Your task to perform on an android device: Empty the shopping cart on ebay. Add "macbook" to the cart on ebay, then select checkout. Image 0: 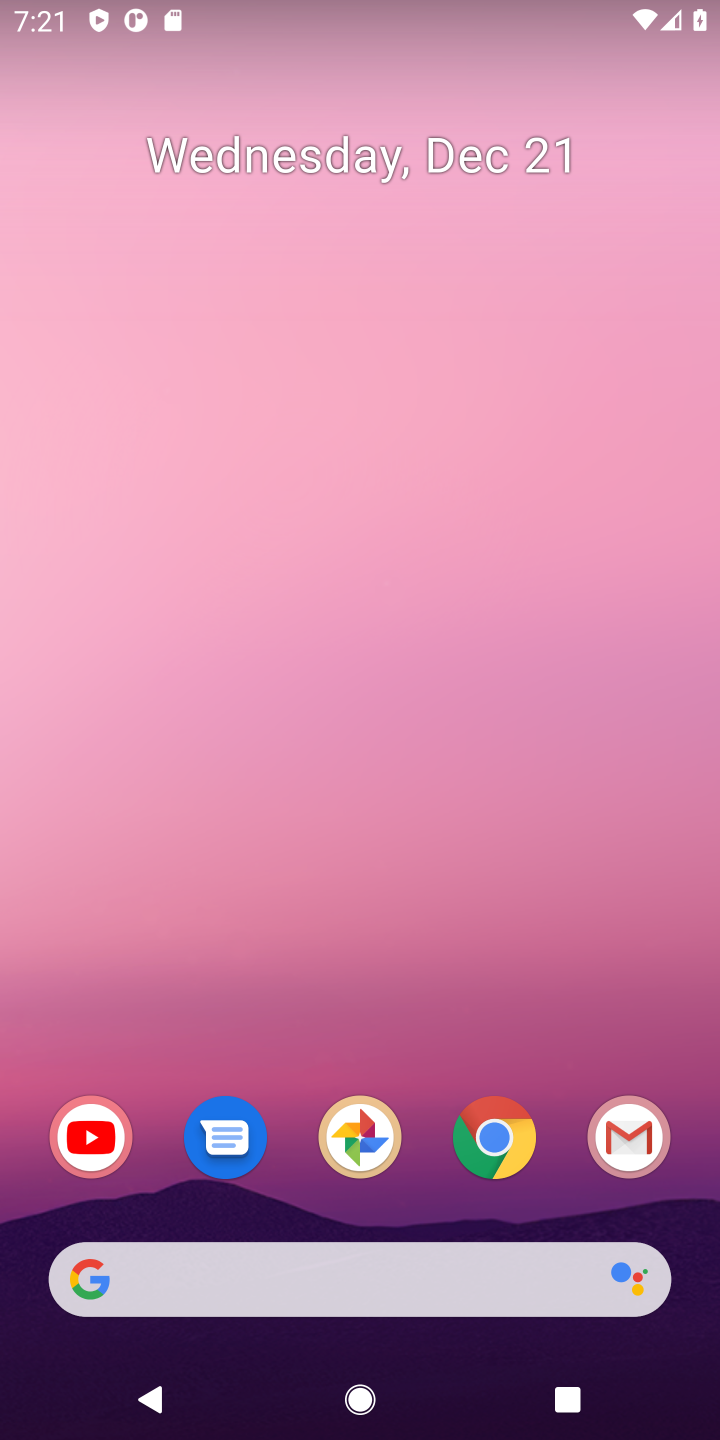
Step 0: click (502, 1145)
Your task to perform on an android device: Empty the shopping cart on ebay. Add "macbook" to the cart on ebay, then select checkout. Image 1: 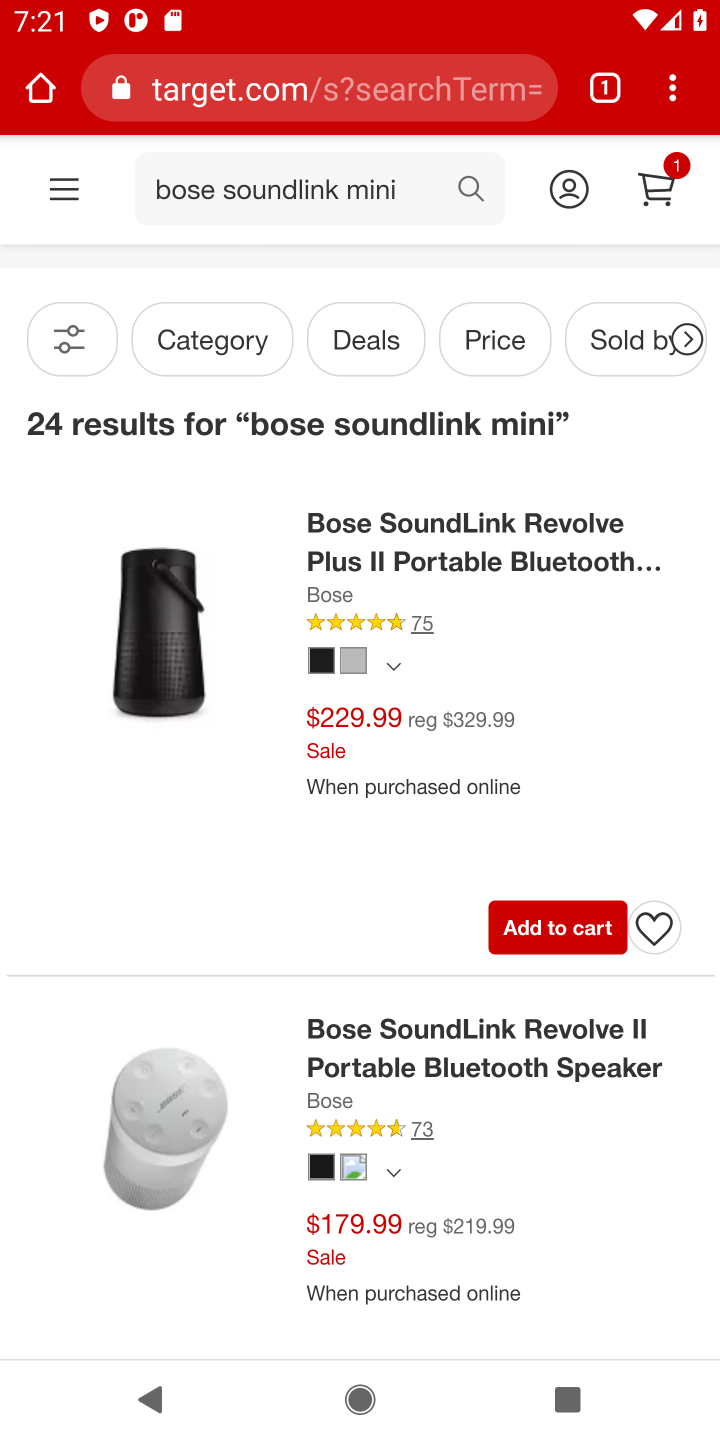
Step 1: click (236, 112)
Your task to perform on an android device: Empty the shopping cart on ebay. Add "macbook" to the cart on ebay, then select checkout. Image 2: 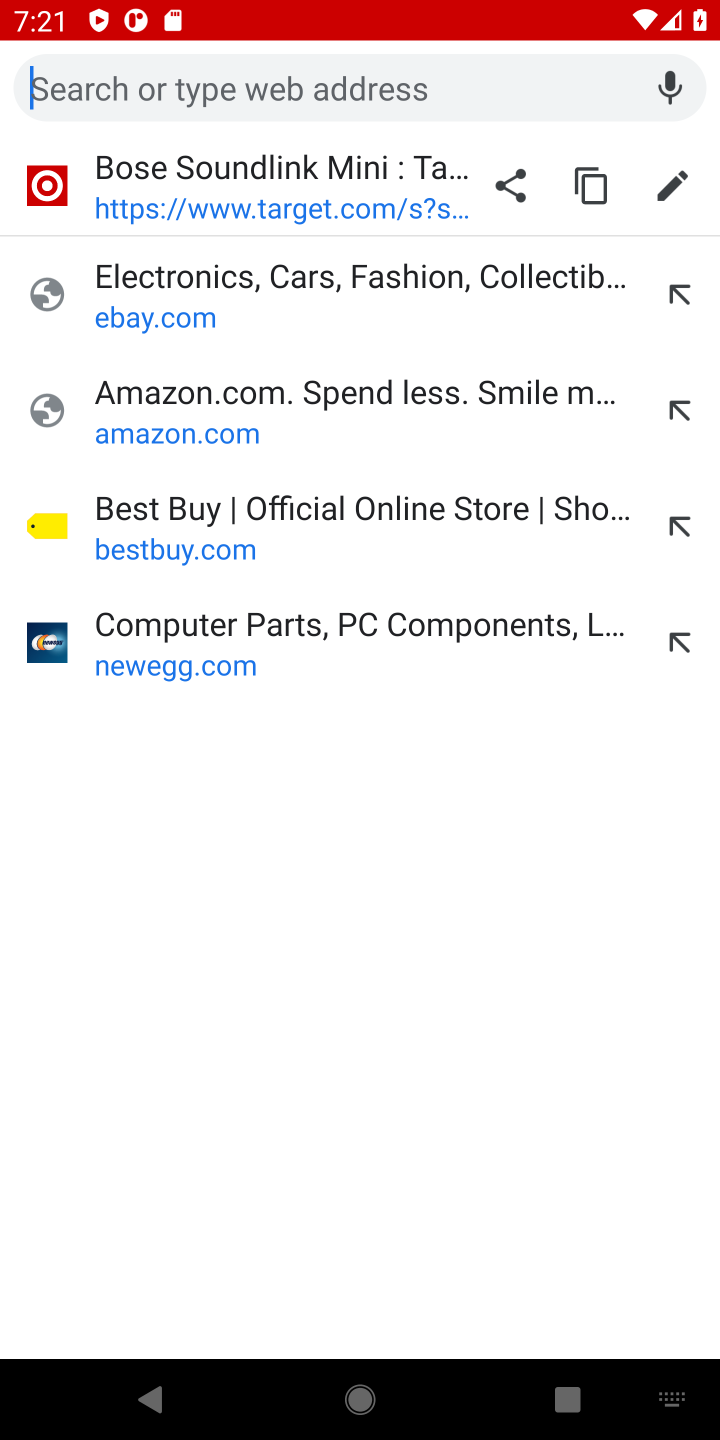
Step 2: click (173, 310)
Your task to perform on an android device: Empty the shopping cart on ebay. Add "macbook" to the cart on ebay, then select checkout. Image 3: 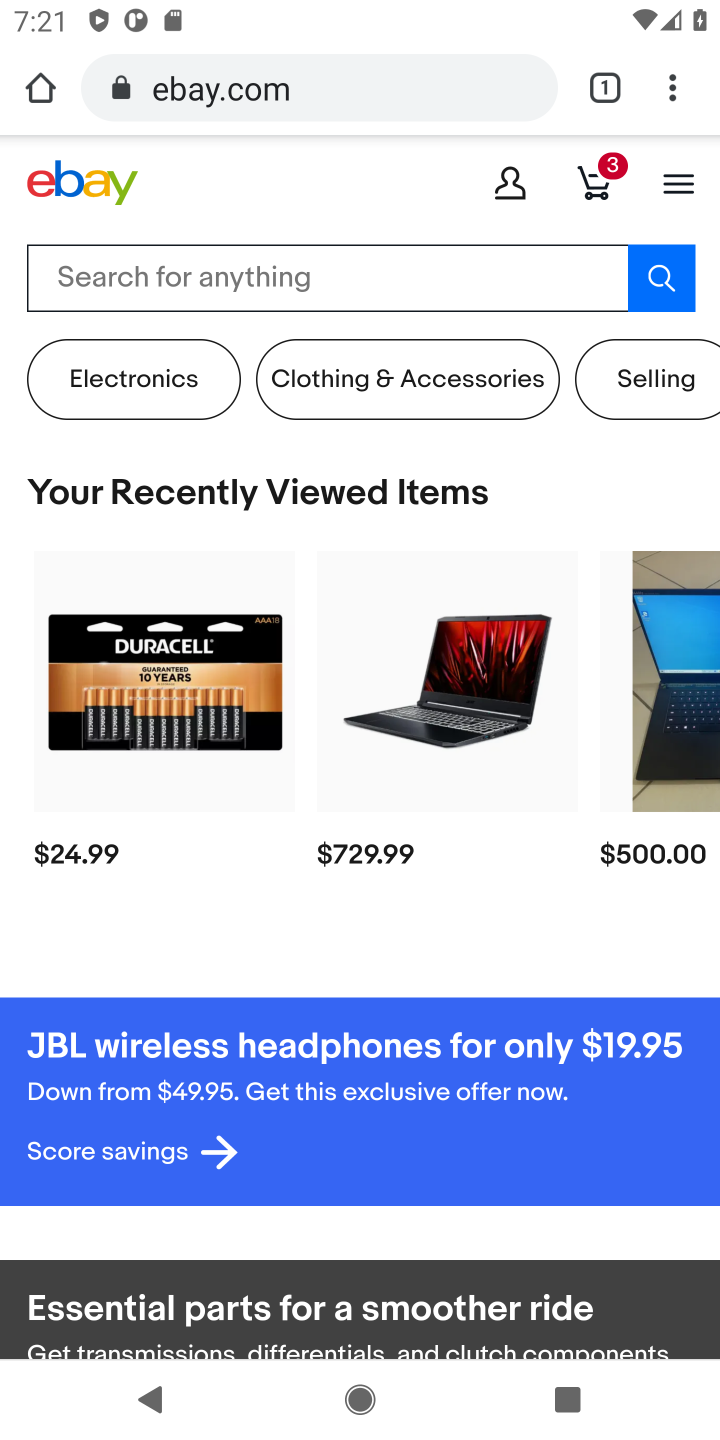
Step 3: click (601, 191)
Your task to perform on an android device: Empty the shopping cart on ebay. Add "macbook" to the cart on ebay, then select checkout. Image 4: 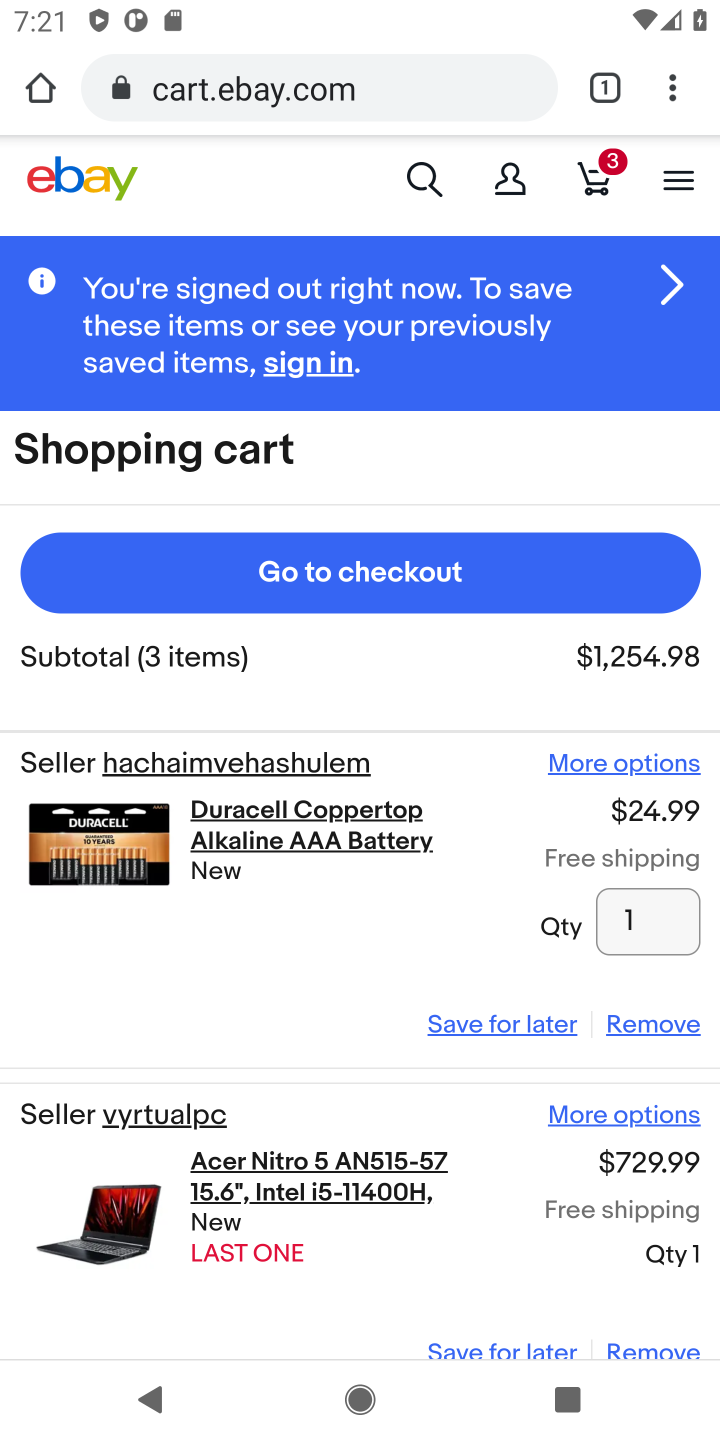
Step 4: click (621, 1027)
Your task to perform on an android device: Empty the shopping cart on ebay. Add "macbook" to the cart on ebay, then select checkout. Image 5: 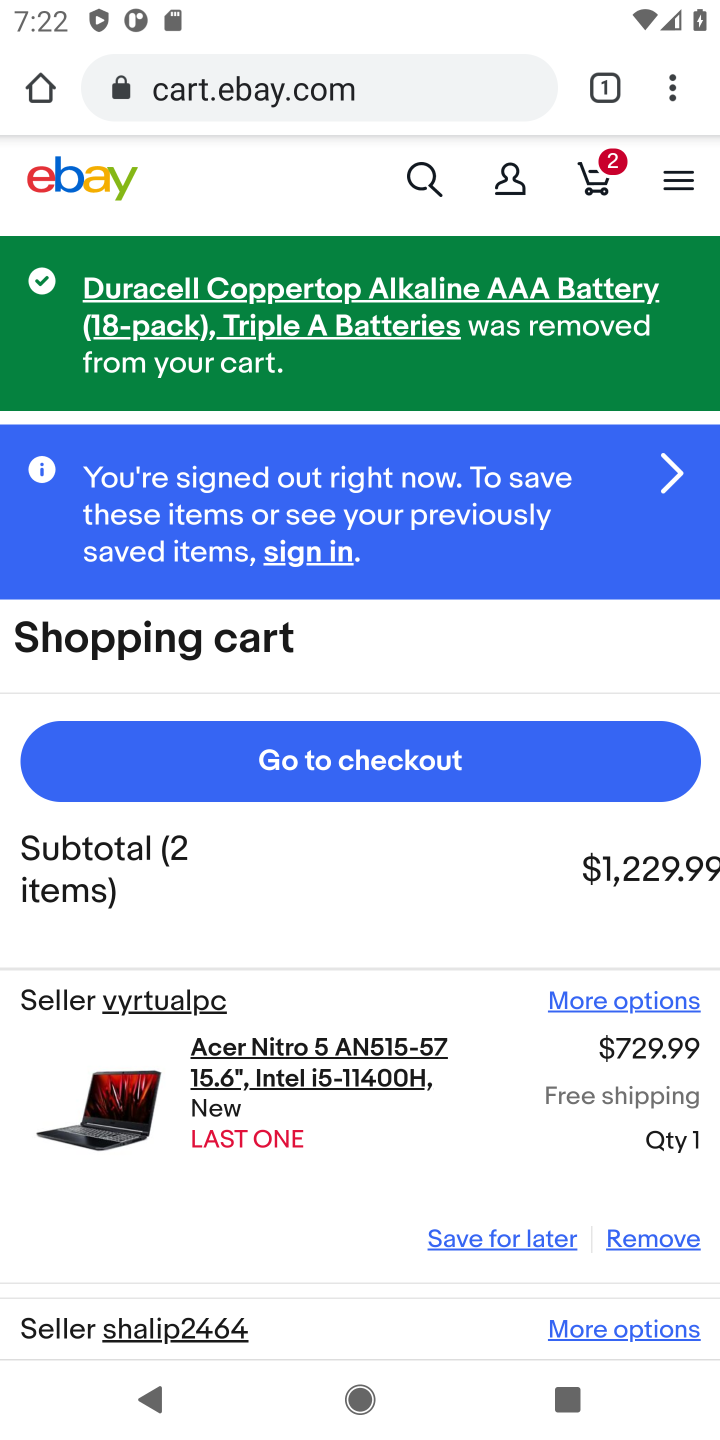
Step 5: click (644, 1240)
Your task to perform on an android device: Empty the shopping cart on ebay. Add "macbook" to the cart on ebay, then select checkout. Image 6: 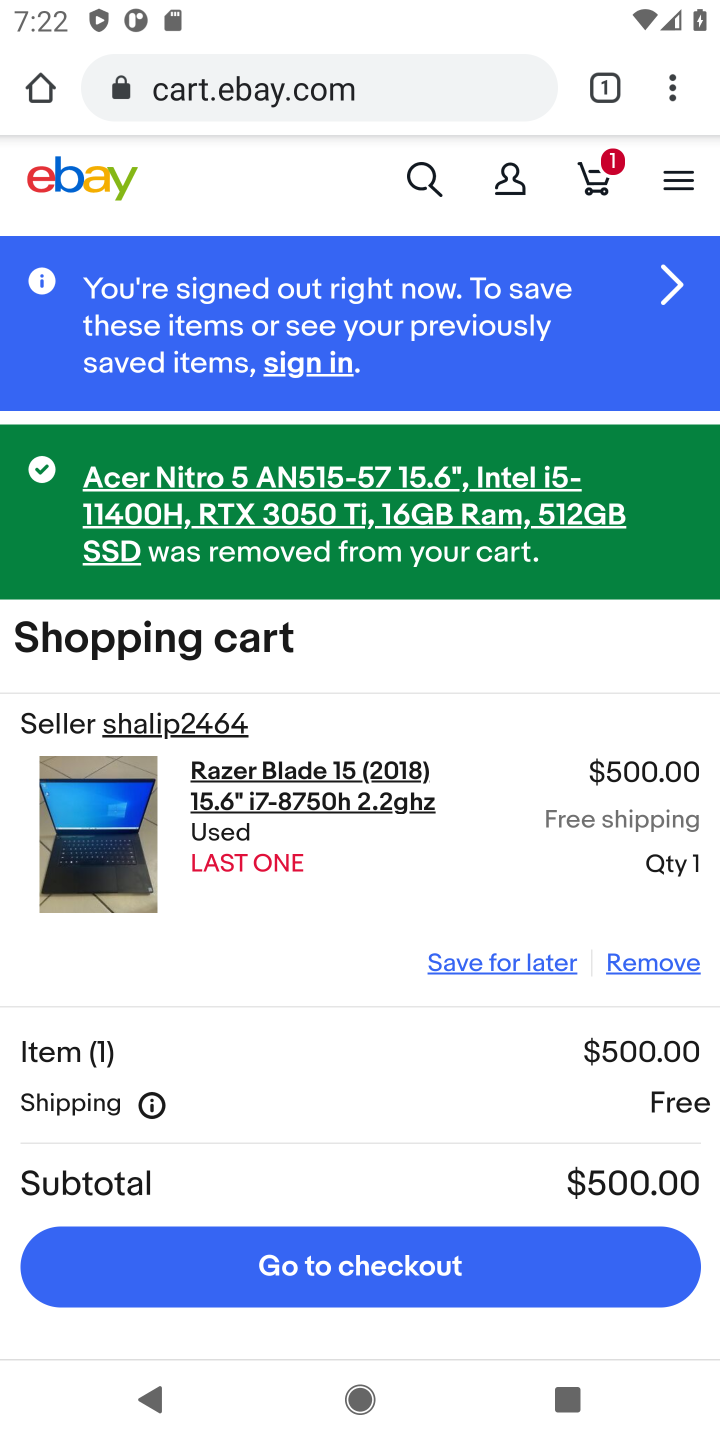
Step 6: click (651, 965)
Your task to perform on an android device: Empty the shopping cart on ebay. Add "macbook" to the cart on ebay, then select checkout. Image 7: 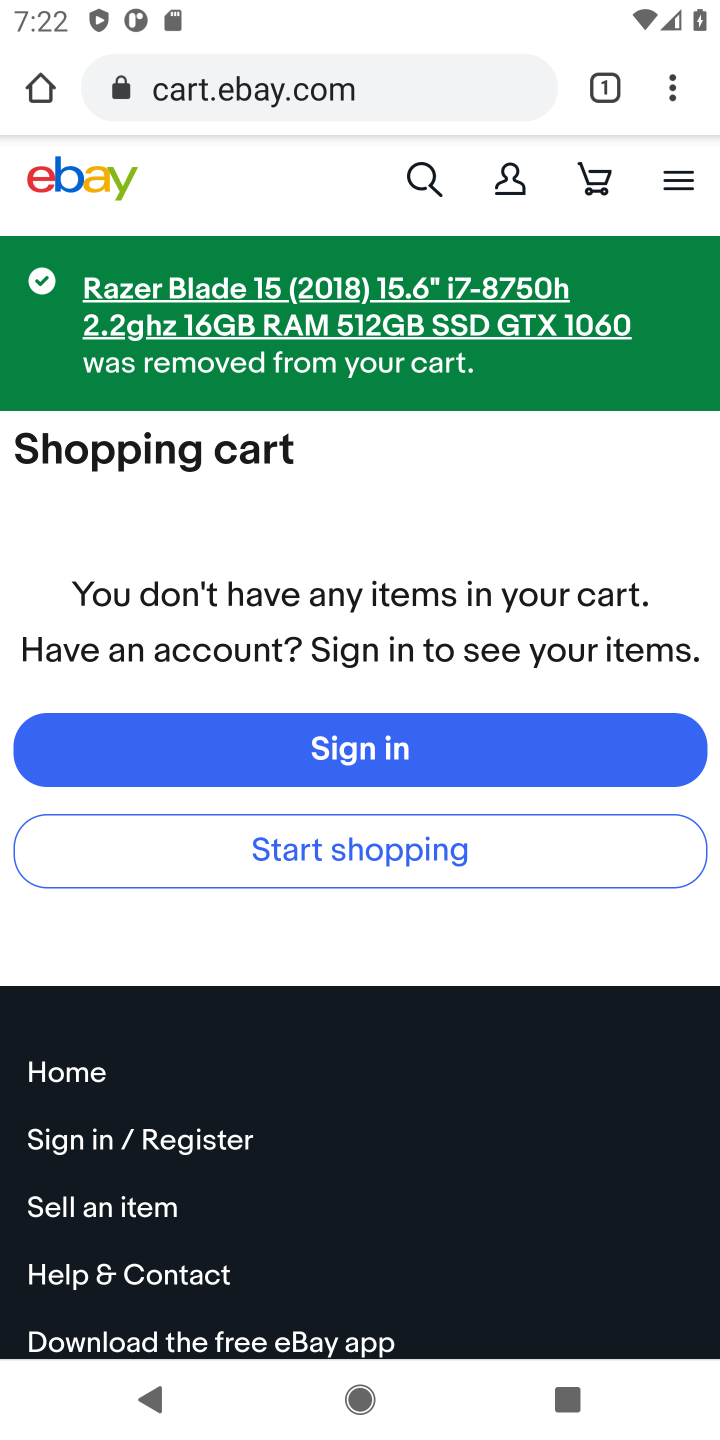
Step 7: click (404, 221)
Your task to perform on an android device: Empty the shopping cart on ebay. Add "macbook" to the cart on ebay, then select checkout. Image 8: 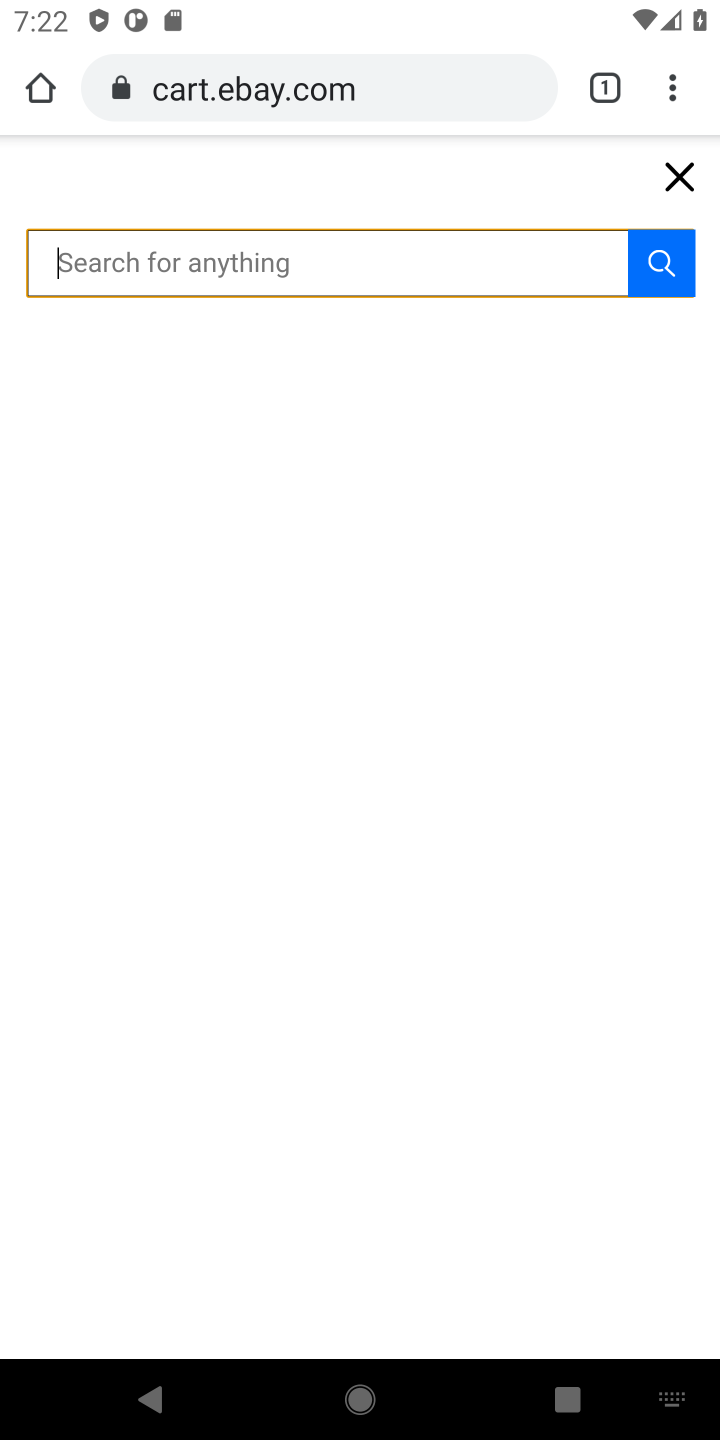
Step 8: type "macbook"
Your task to perform on an android device: Empty the shopping cart on ebay. Add "macbook" to the cart on ebay, then select checkout. Image 9: 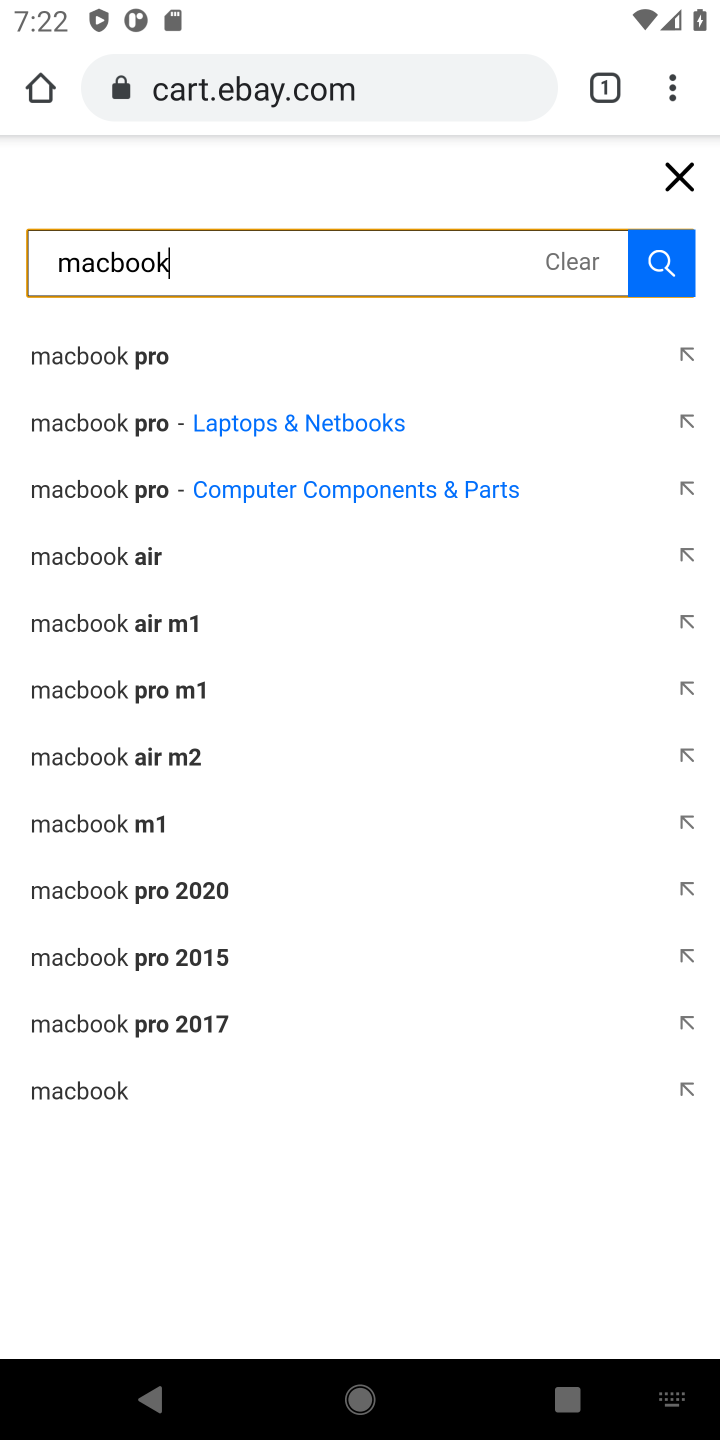
Step 9: click (110, 1094)
Your task to perform on an android device: Empty the shopping cart on ebay. Add "macbook" to the cart on ebay, then select checkout. Image 10: 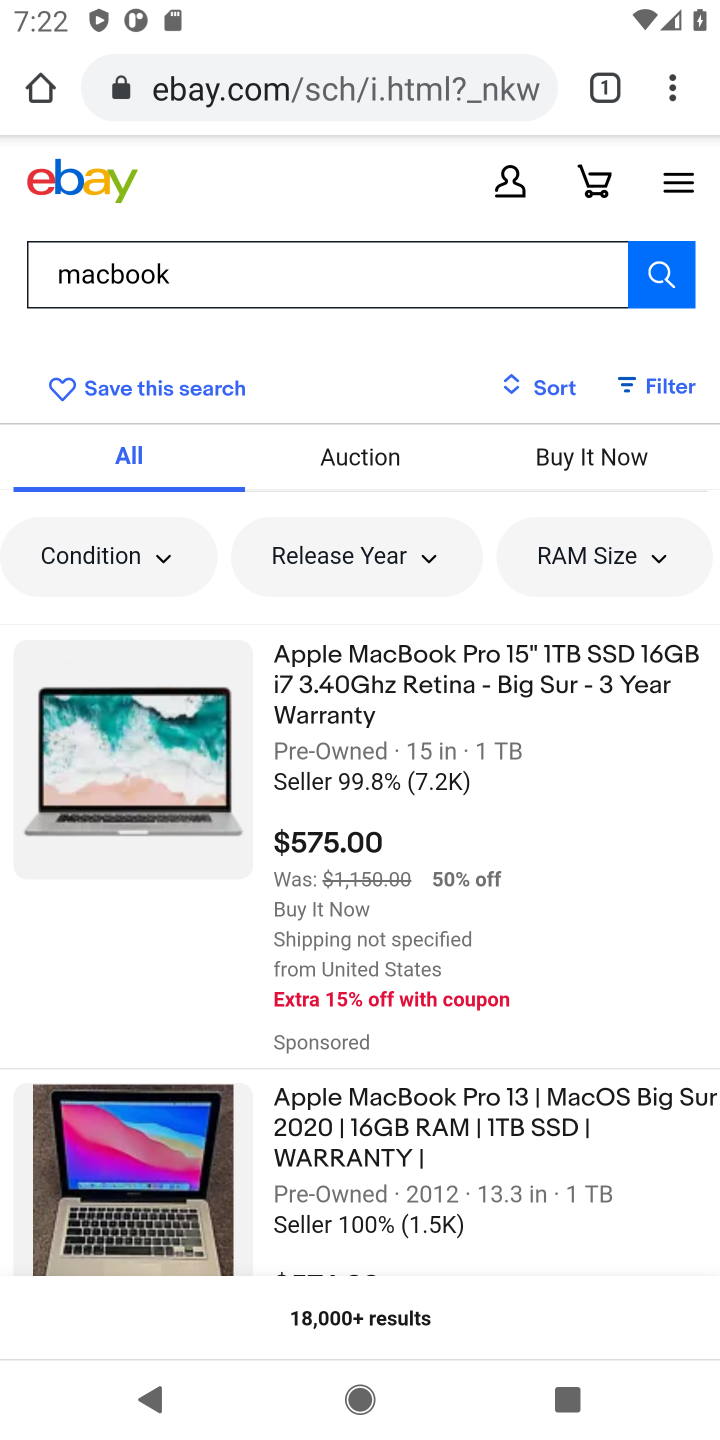
Step 10: click (318, 681)
Your task to perform on an android device: Empty the shopping cart on ebay. Add "macbook" to the cart on ebay, then select checkout. Image 11: 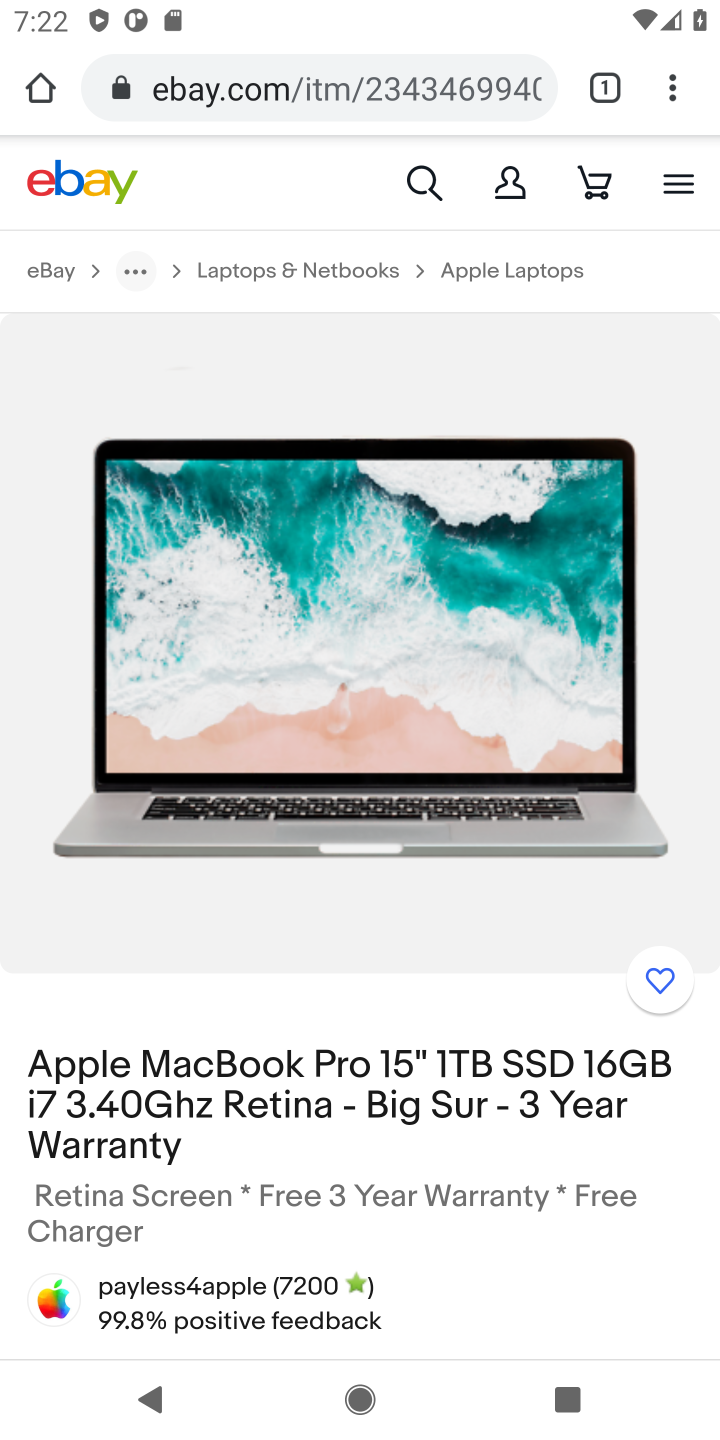
Step 11: drag from (370, 1056) to (314, 335)
Your task to perform on an android device: Empty the shopping cart on ebay. Add "macbook" to the cart on ebay, then select checkout. Image 12: 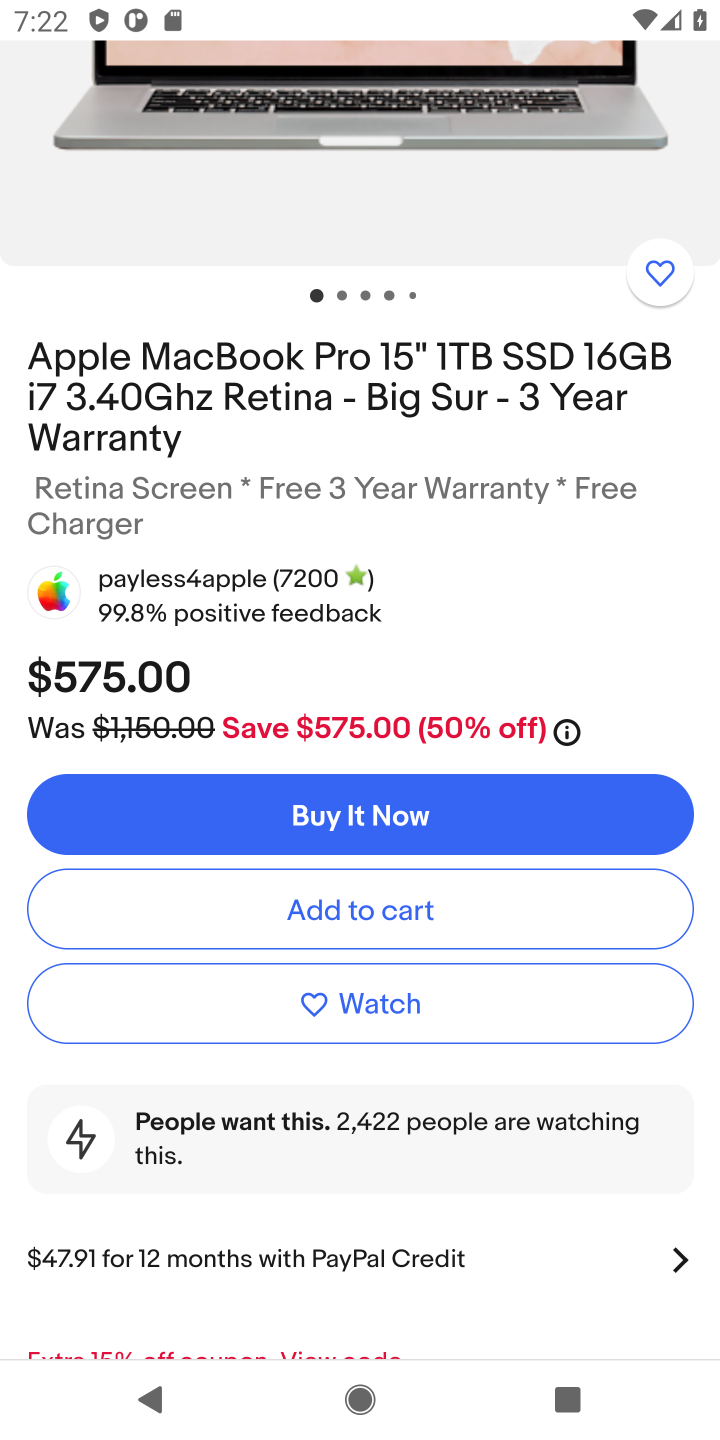
Step 12: click (343, 911)
Your task to perform on an android device: Empty the shopping cart on ebay. Add "macbook" to the cart on ebay, then select checkout. Image 13: 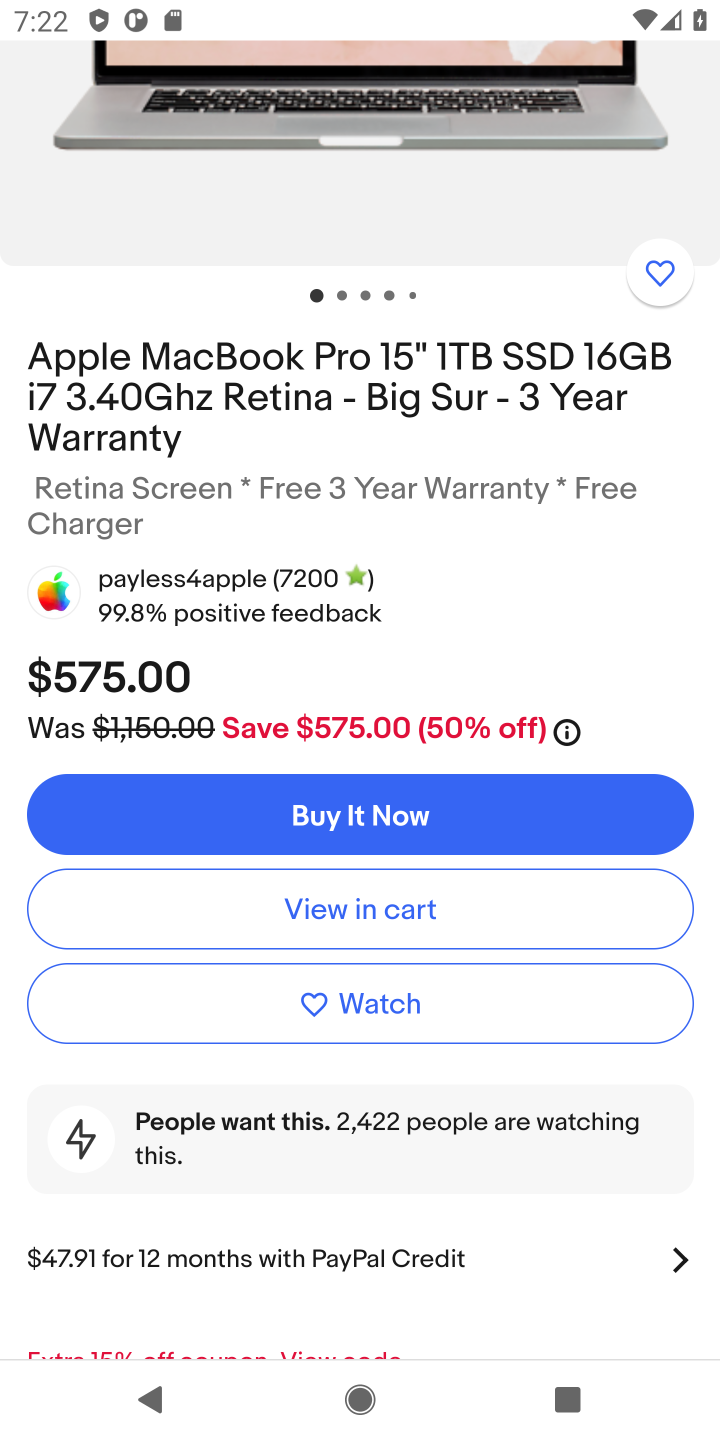
Step 13: click (343, 911)
Your task to perform on an android device: Empty the shopping cart on ebay. Add "macbook" to the cart on ebay, then select checkout. Image 14: 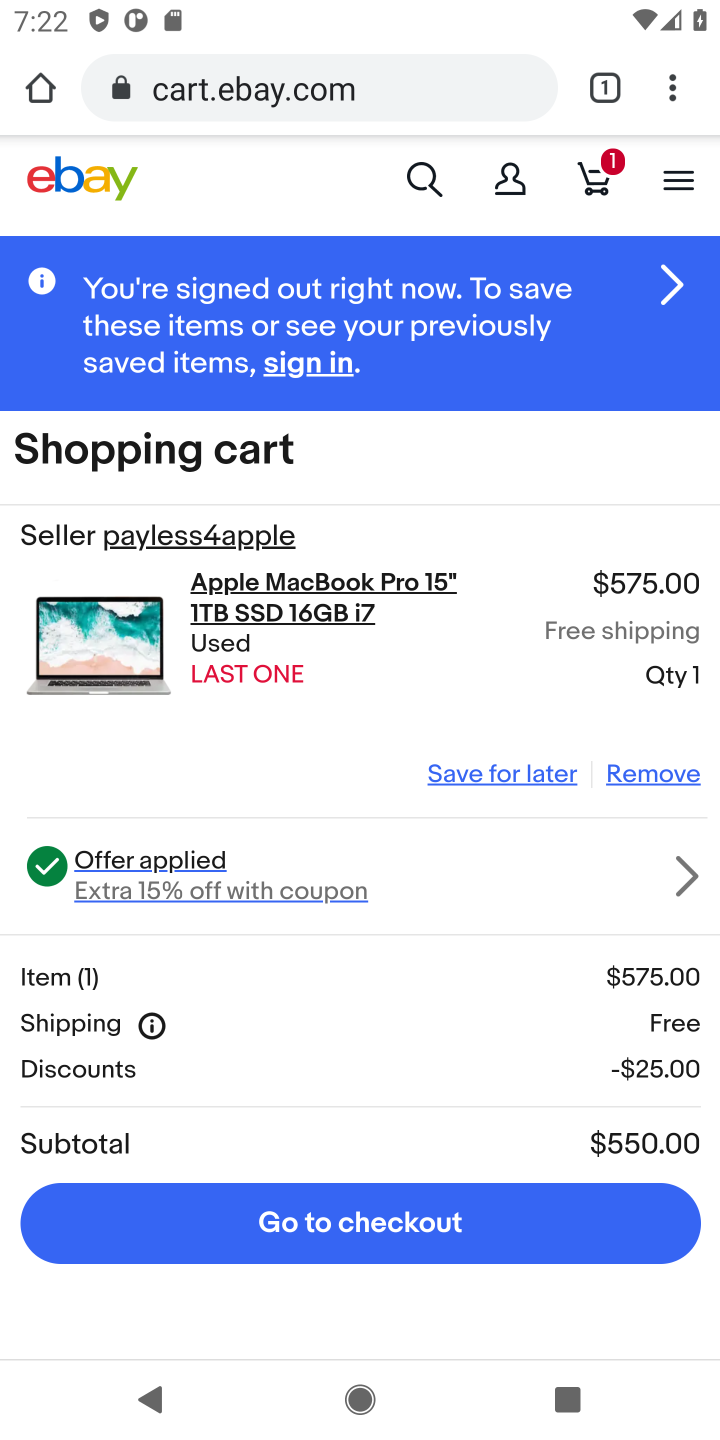
Step 14: click (355, 1233)
Your task to perform on an android device: Empty the shopping cart on ebay. Add "macbook" to the cart on ebay, then select checkout. Image 15: 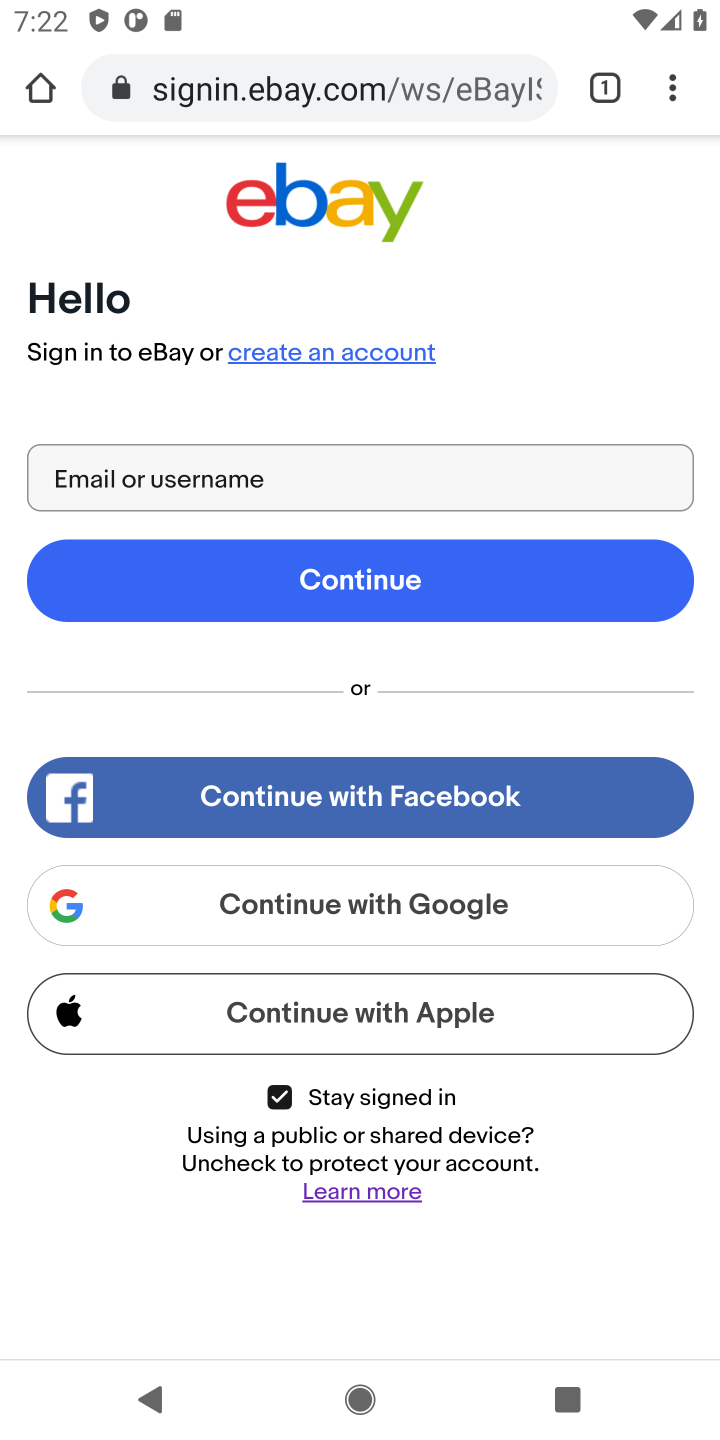
Step 15: task complete